Your task to perform on an android device: read, delete, or share a saved page in the chrome app Image 0: 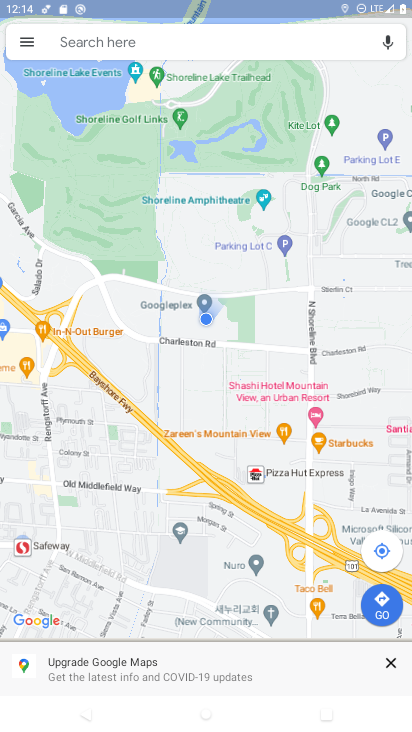
Step 0: press home button
Your task to perform on an android device: read, delete, or share a saved page in the chrome app Image 1: 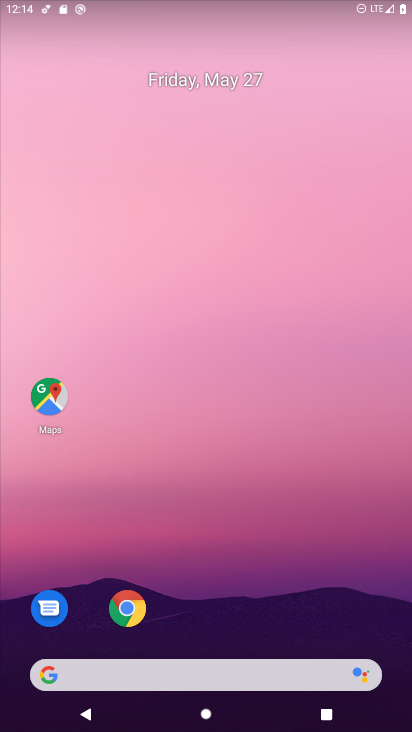
Step 1: click (129, 601)
Your task to perform on an android device: read, delete, or share a saved page in the chrome app Image 2: 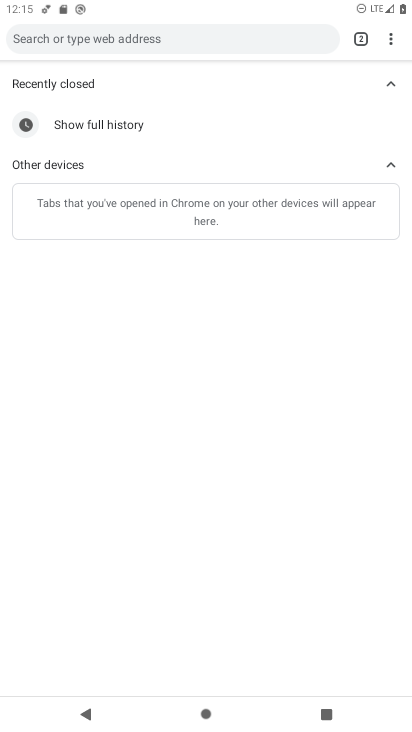
Step 2: drag from (393, 39) to (286, 260)
Your task to perform on an android device: read, delete, or share a saved page in the chrome app Image 3: 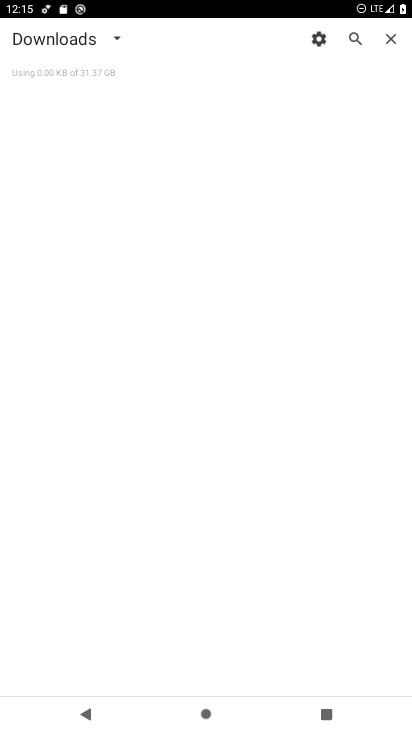
Step 3: click (108, 33)
Your task to perform on an android device: read, delete, or share a saved page in the chrome app Image 4: 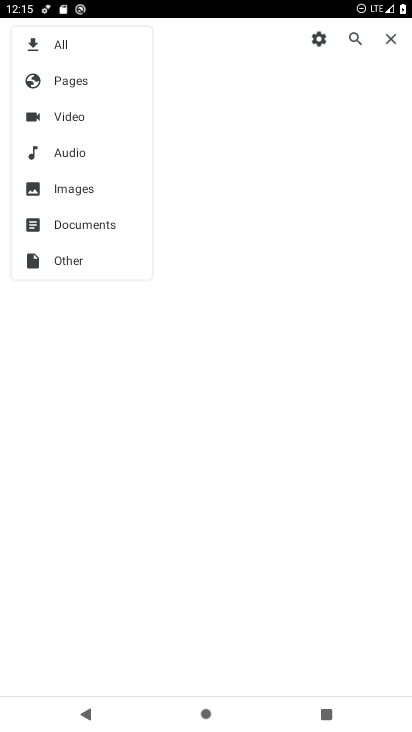
Step 4: click (80, 76)
Your task to perform on an android device: read, delete, or share a saved page in the chrome app Image 5: 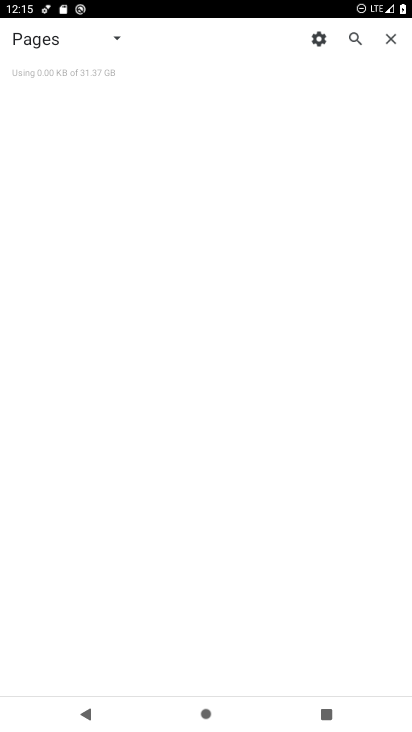
Step 5: task complete